Your task to perform on an android device: open app "Etsy: Buy & Sell Unique Items" (install if not already installed) and enter user name: "camp@inbox.com" and password: "unrelated" Image 0: 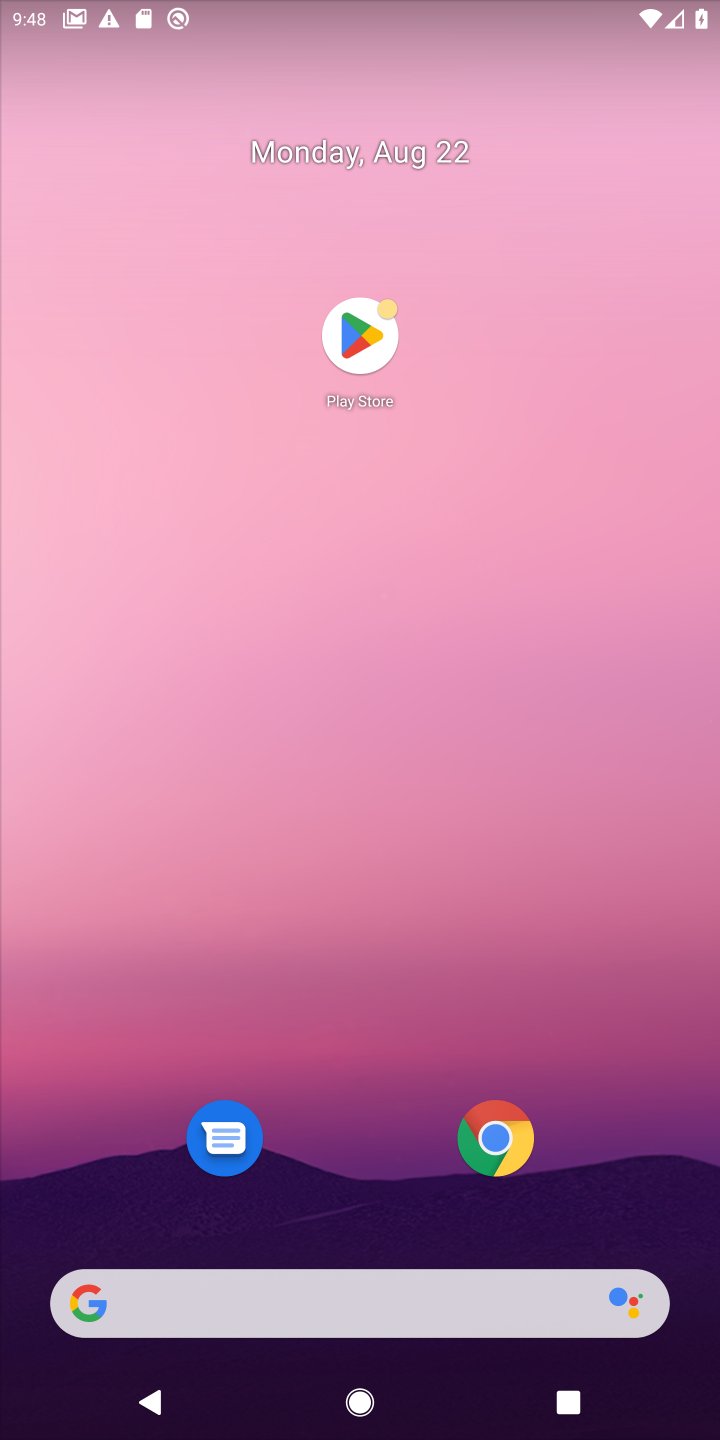
Step 0: click (350, 335)
Your task to perform on an android device: open app "Etsy: Buy & Sell Unique Items" (install if not already installed) and enter user name: "camp@inbox.com" and password: "unrelated" Image 1: 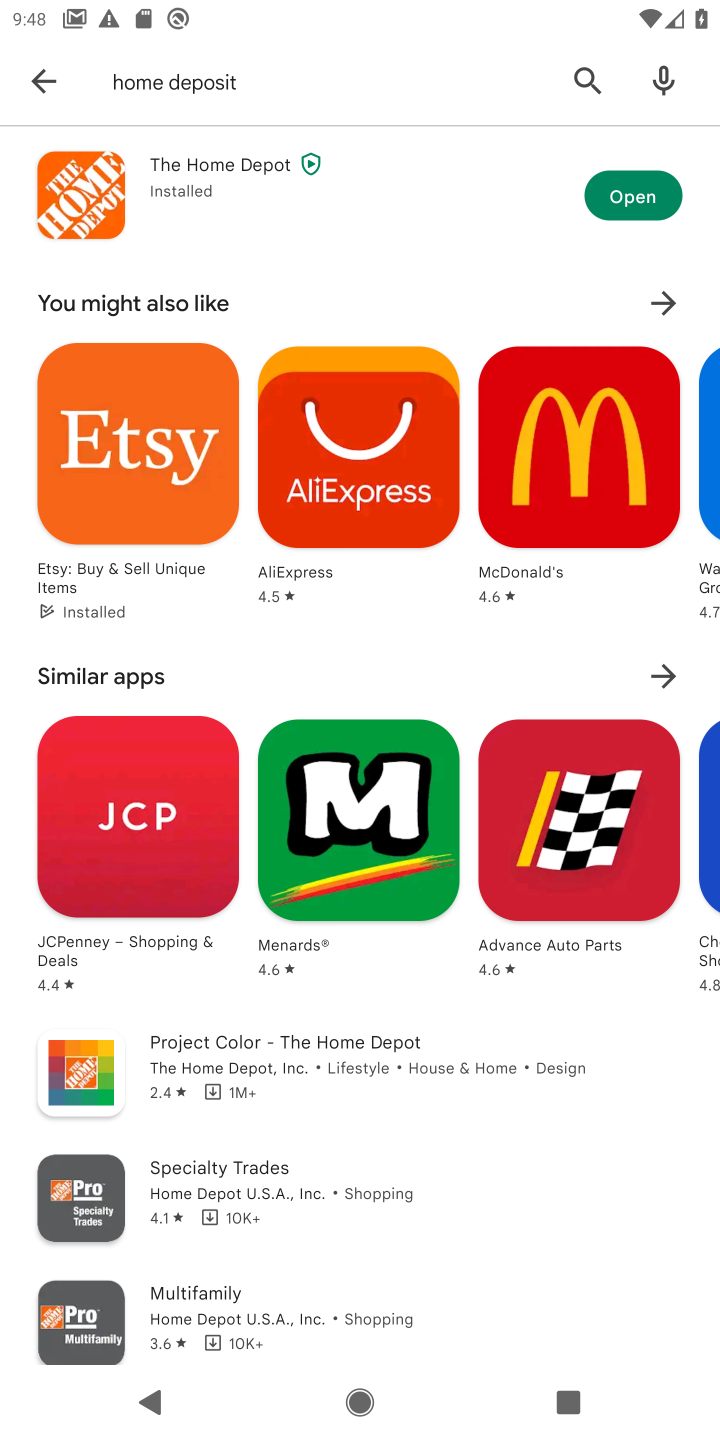
Step 1: click (592, 84)
Your task to perform on an android device: open app "Etsy: Buy & Sell Unique Items" (install if not already installed) and enter user name: "camp@inbox.com" and password: "unrelated" Image 2: 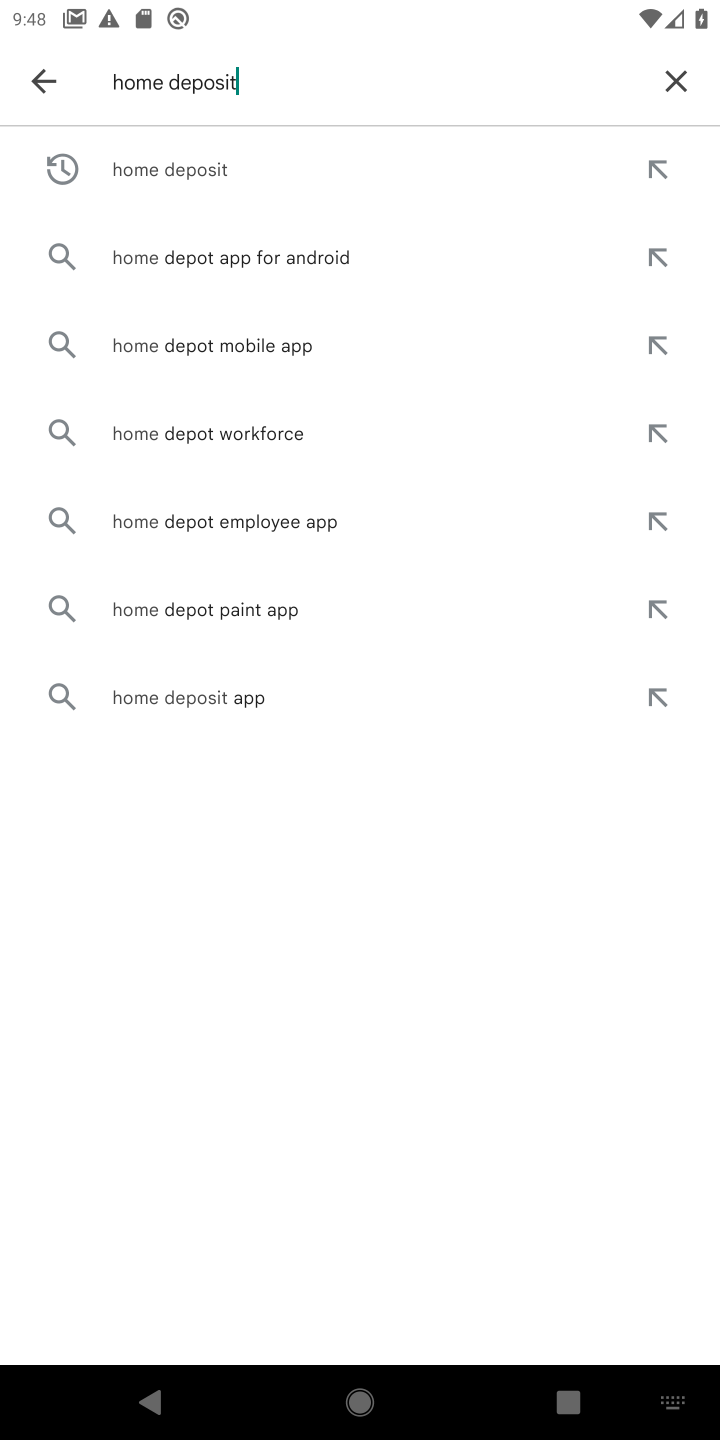
Step 2: click (675, 86)
Your task to perform on an android device: open app "Etsy: Buy & Sell Unique Items" (install if not already installed) and enter user name: "camp@inbox.com" and password: "unrelated" Image 3: 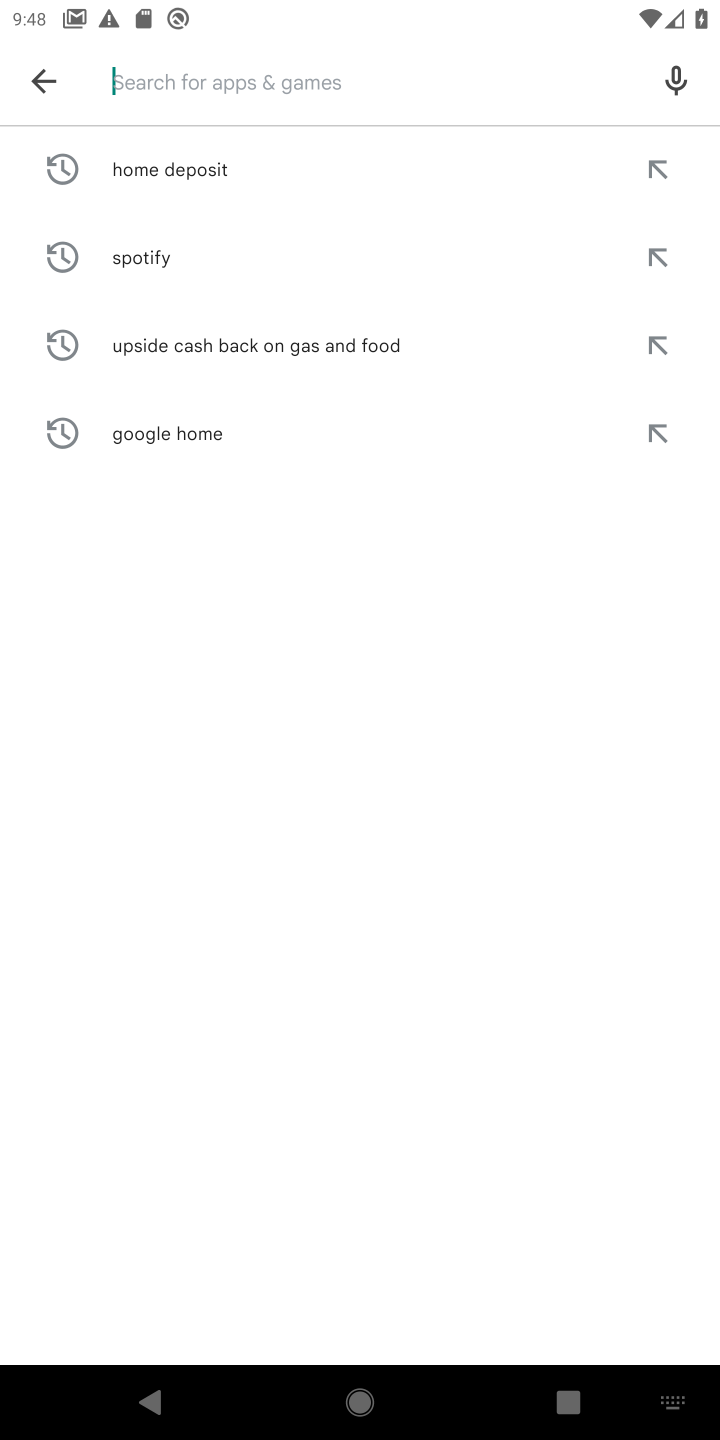
Step 3: type "Etsy: Buy & Sell Unique Items" "
Your task to perform on an android device: open app "Etsy: Buy & Sell Unique Items" (install if not already installed) and enter user name: "camp@inbox.com" and password: "unrelated" Image 4: 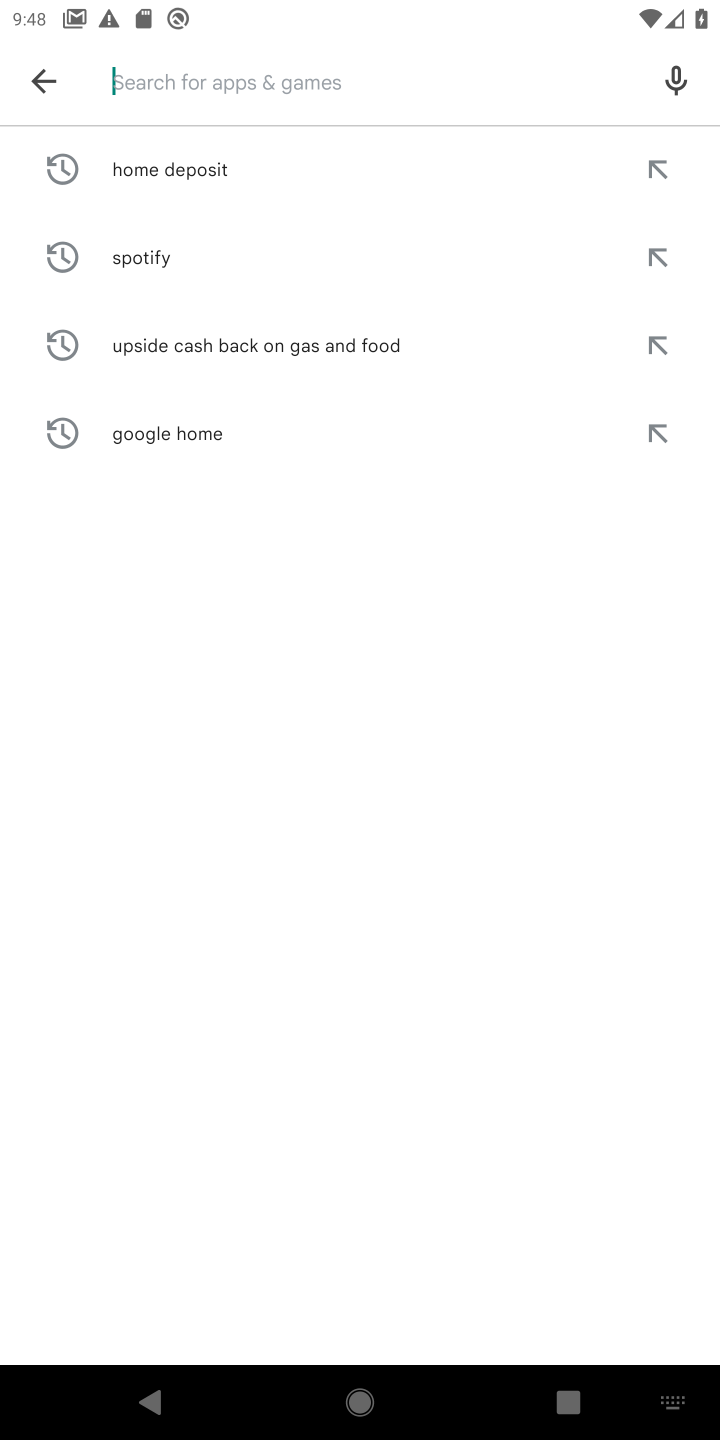
Step 4: type ""
Your task to perform on an android device: open app "Etsy: Buy & Sell Unique Items" (install if not already installed) and enter user name: "camp@inbox.com" and password: "unrelated" Image 5: 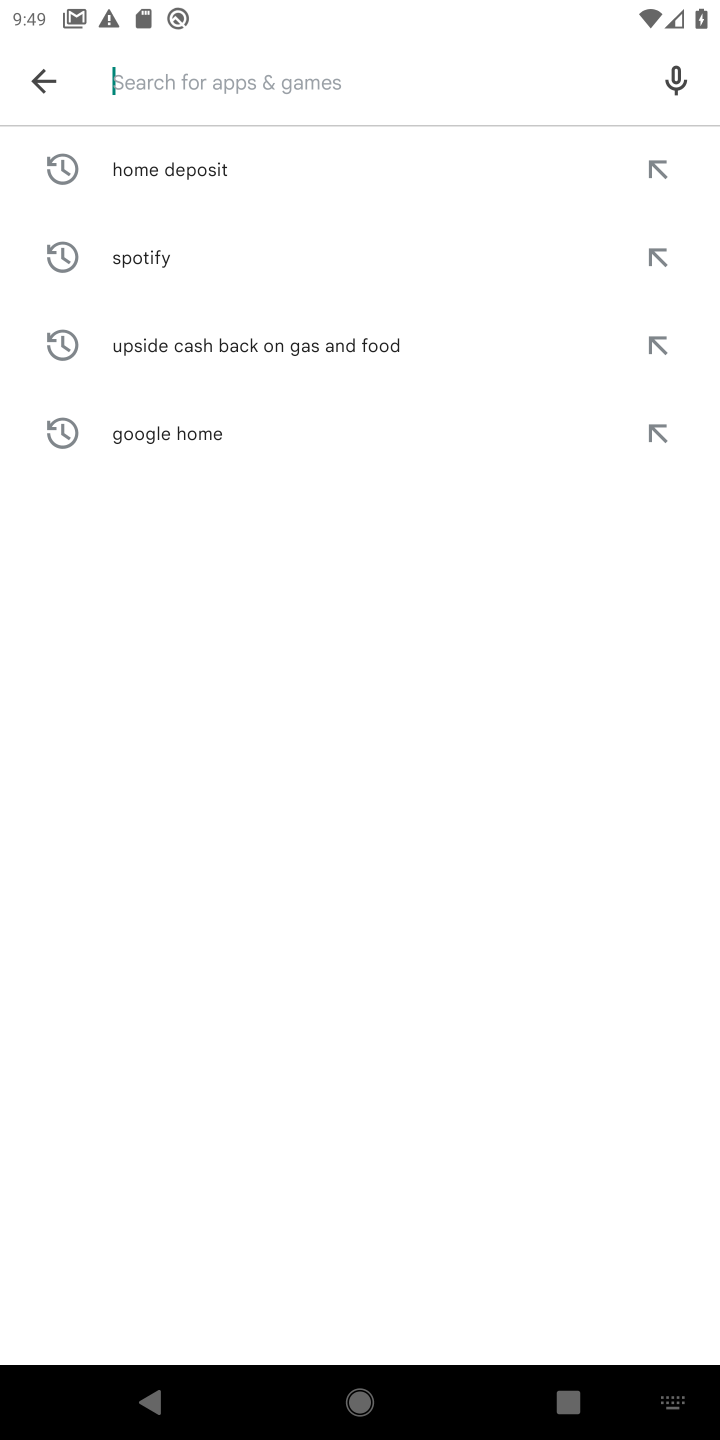
Step 5: type "Etsy: Buy & Sell Unique Items"
Your task to perform on an android device: open app "Etsy: Buy & Sell Unique Items" (install if not already installed) and enter user name: "camp@inbox.com" and password: "unrelated" Image 6: 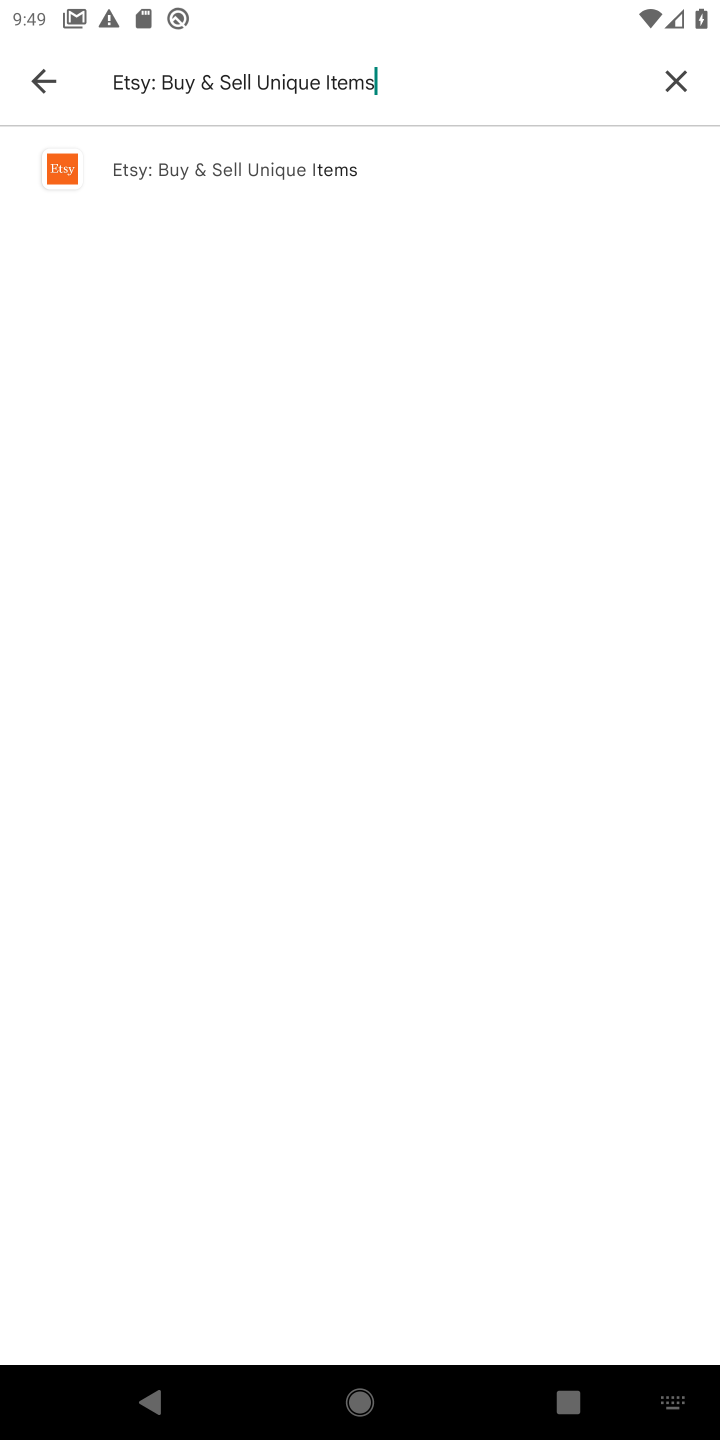
Step 6: type ""
Your task to perform on an android device: open app "Etsy: Buy & Sell Unique Items" (install if not already installed) and enter user name: "camp@inbox.com" and password: "unrelated" Image 7: 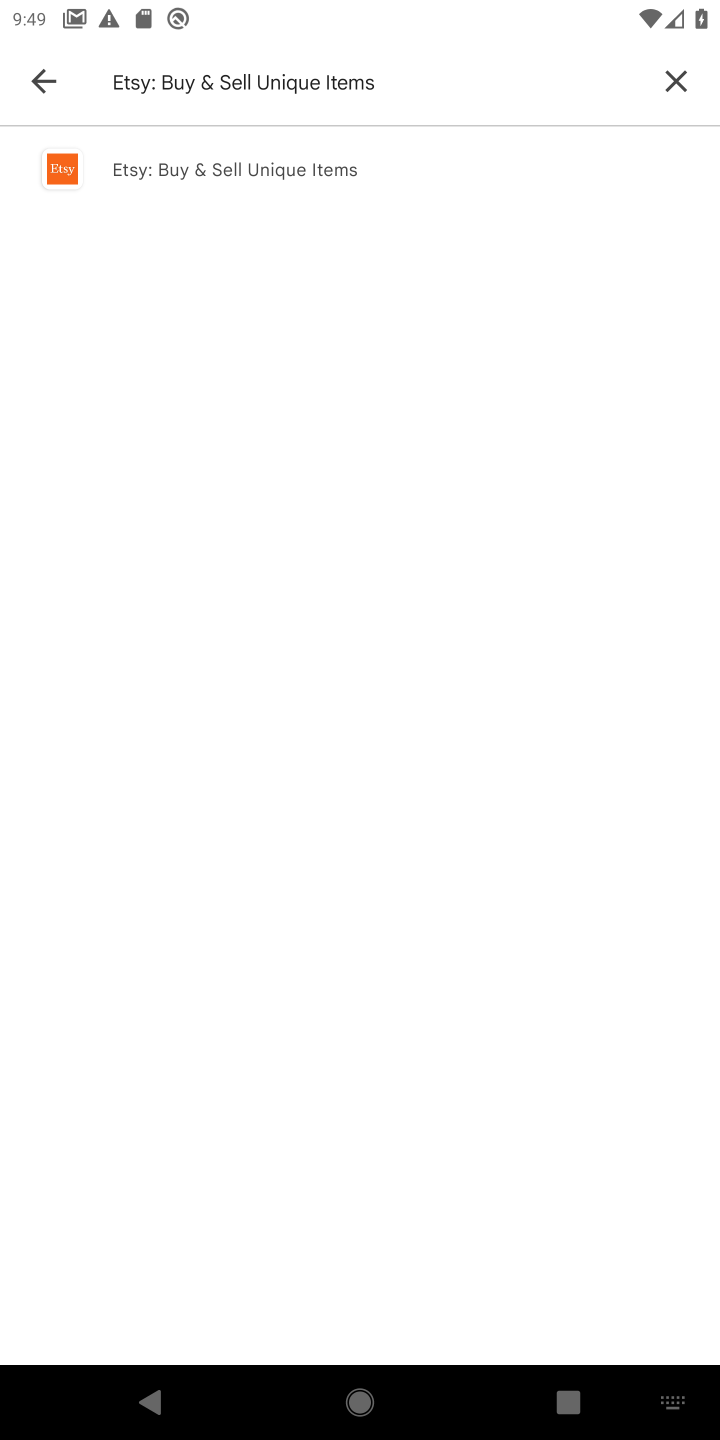
Step 7: click (227, 173)
Your task to perform on an android device: open app "Etsy: Buy & Sell Unique Items" (install if not already installed) and enter user name: "camp@inbox.com" and password: "unrelated" Image 8: 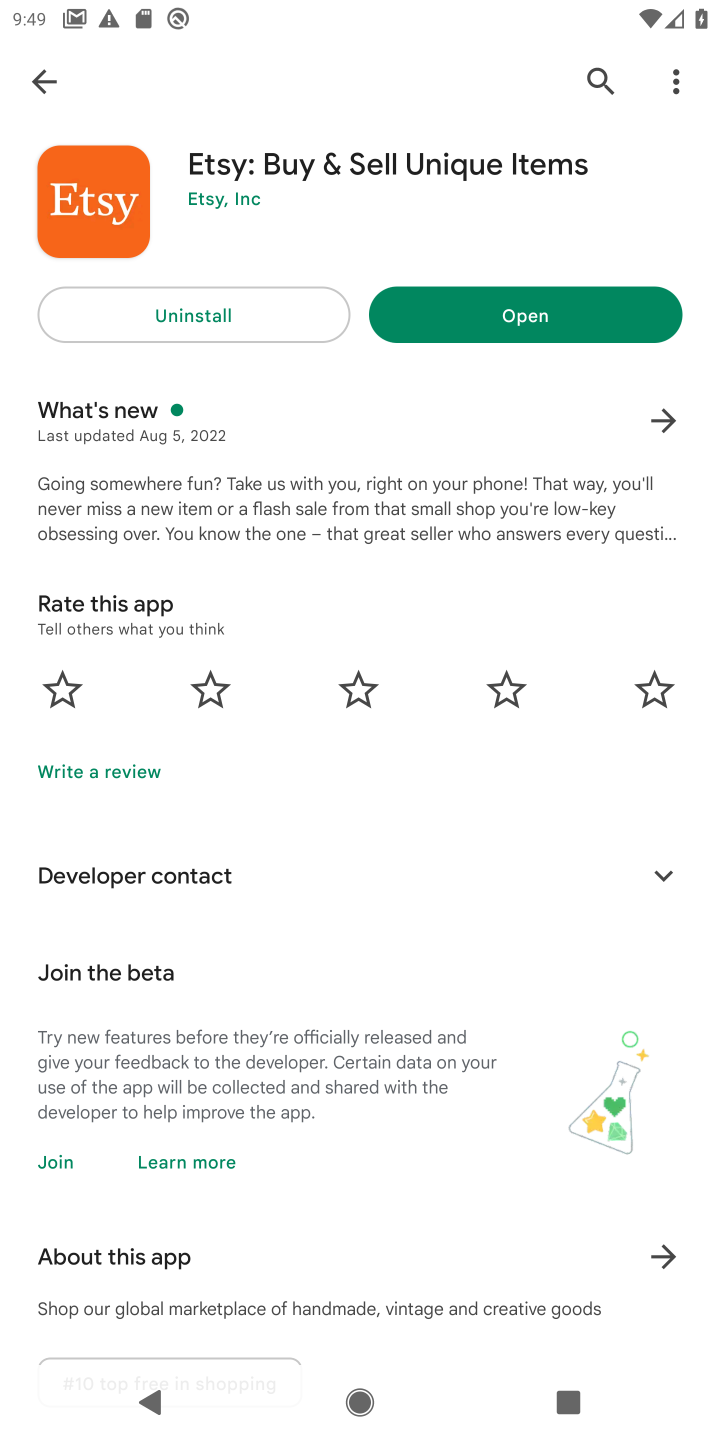
Step 8: click (523, 318)
Your task to perform on an android device: open app "Etsy: Buy & Sell Unique Items" (install if not already installed) and enter user name: "camp@inbox.com" and password: "unrelated" Image 9: 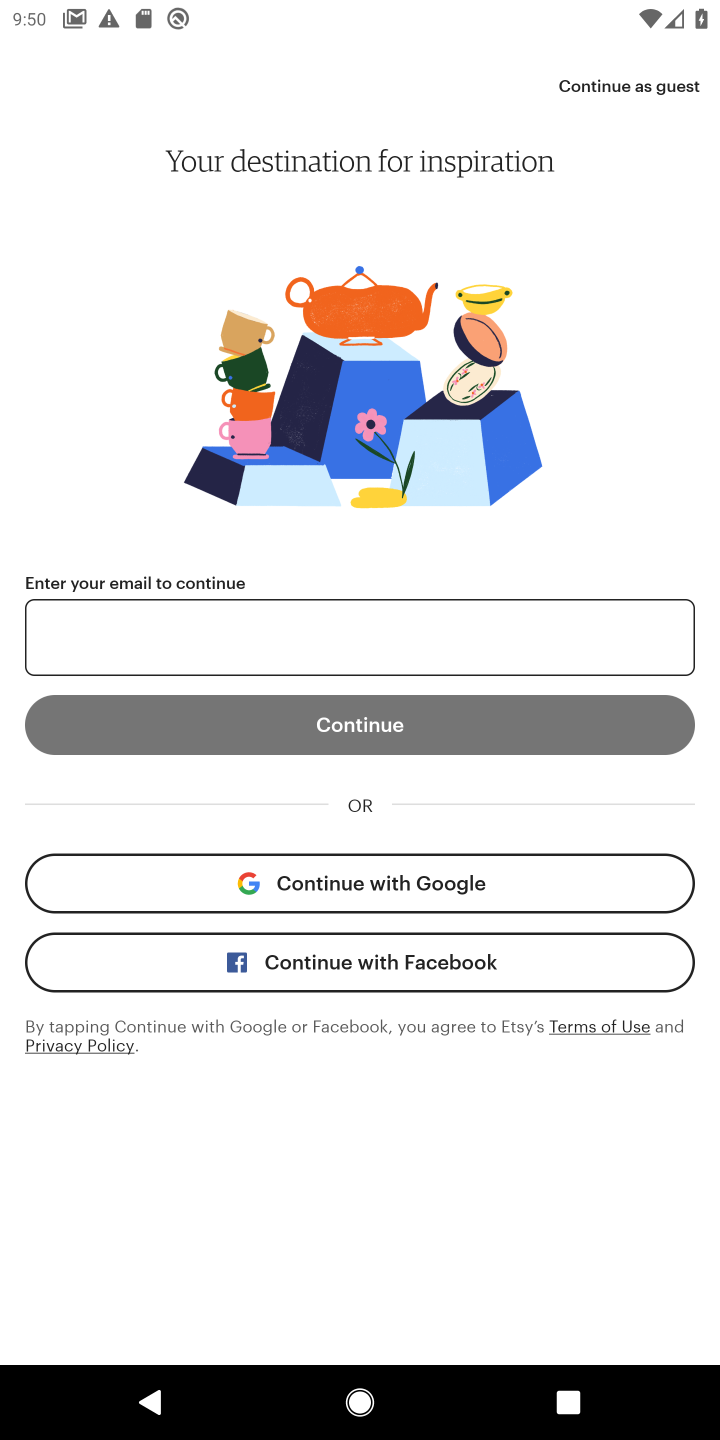
Step 9: type "camp@inbox.com"
Your task to perform on an android device: open app "Etsy: Buy & Sell Unique Items" (install if not already installed) and enter user name: "camp@inbox.com" and password: "unrelated" Image 10: 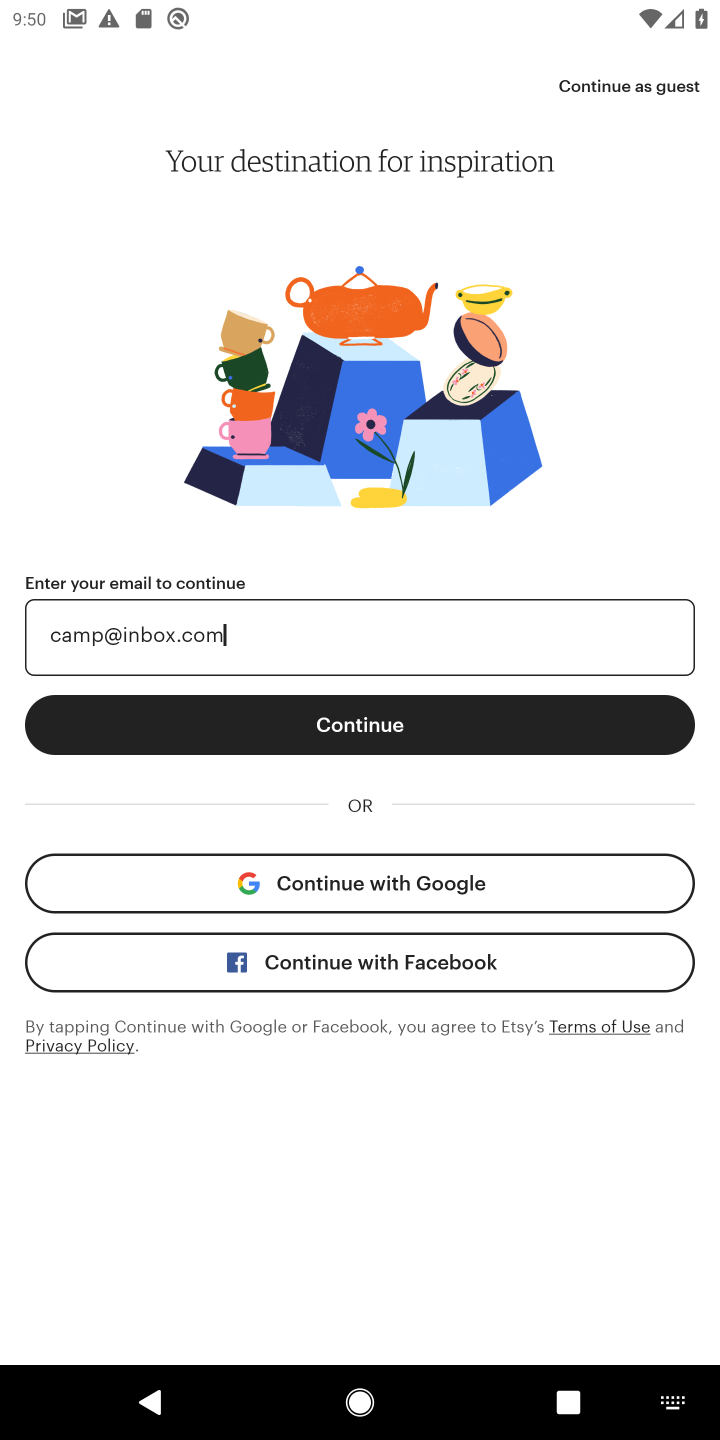
Step 10: click (351, 722)
Your task to perform on an android device: open app "Etsy: Buy & Sell Unique Items" (install if not already installed) and enter user name: "camp@inbox.com" and password: "unrelated" Image 11: 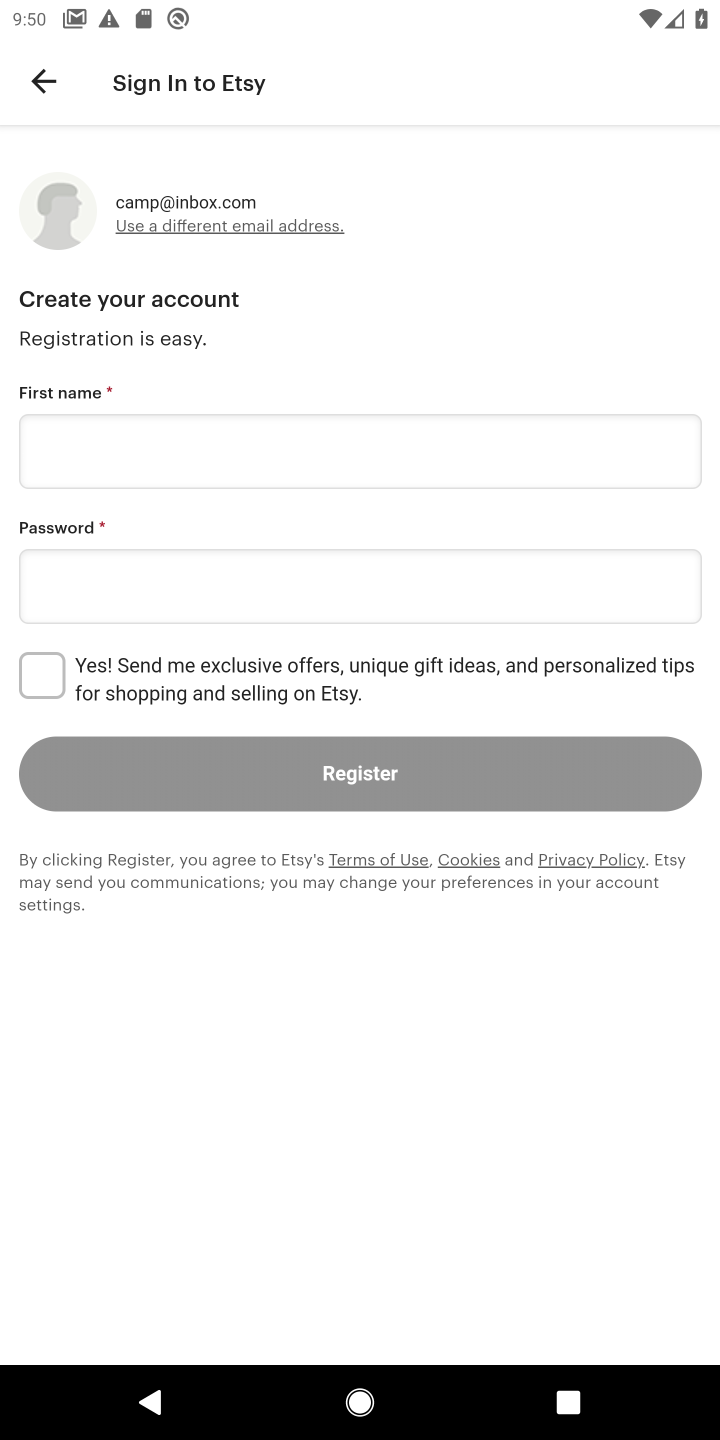
Step 11: type "camp@inbox.com"
Your task to perform on an android device: open app "Etsy: Buy & Sell Unique Items" (install if not already installed) and enter user name: "camp@inbox.com" and password: "unrelated" Image 12: 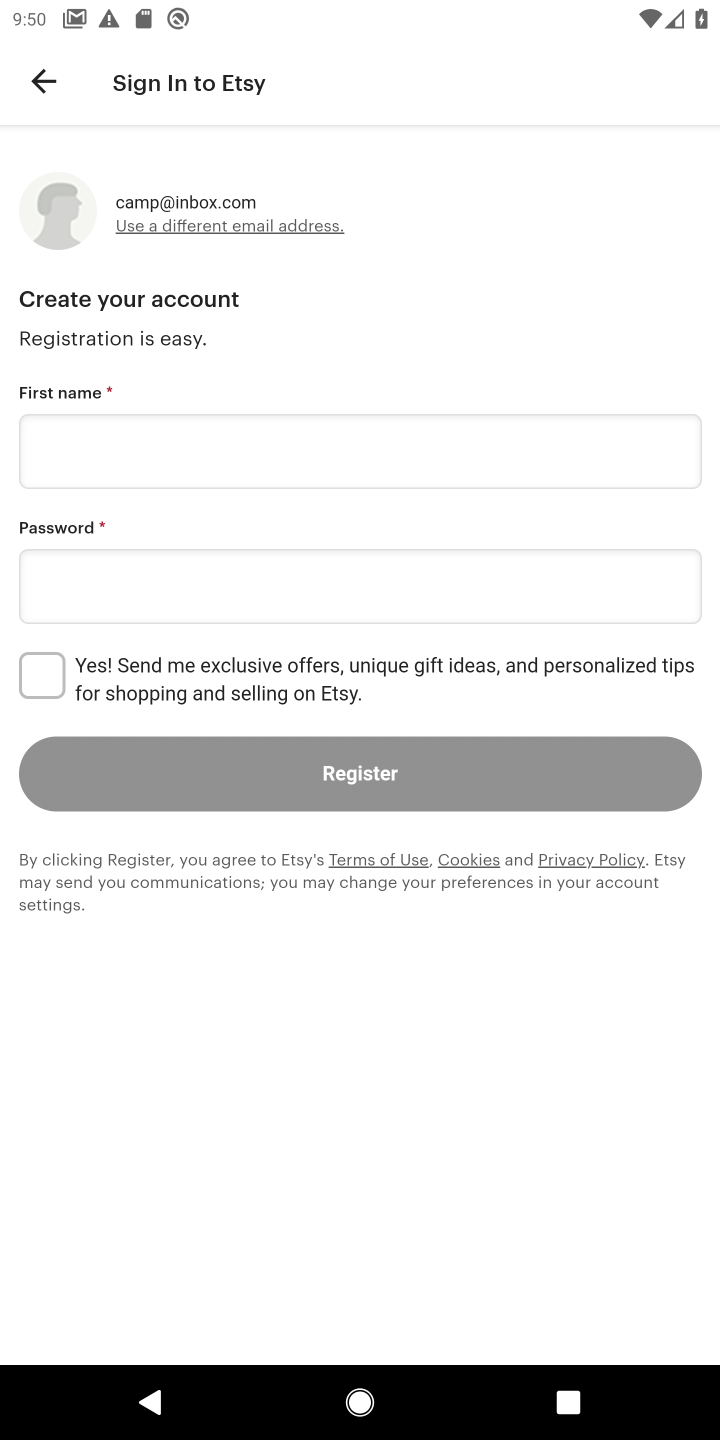
Step 12: type ""
Your task to perform on an android device: open app "Etsy: Buy & Sell Unique Items" (install if not already installed) and enter user name: "camp@inbox.com" and password: "unrelated" Image 13: 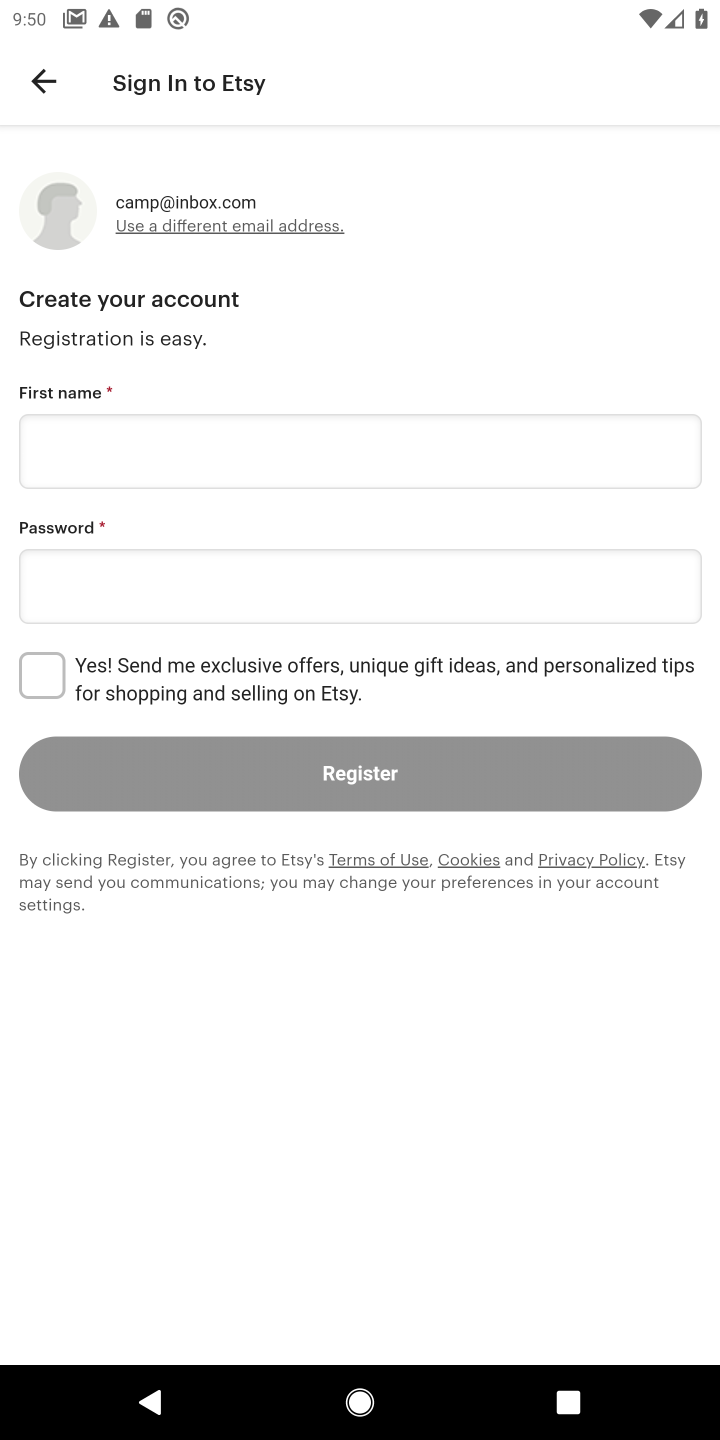
Step 13: click (136, 422)
Your task to perform on an android device: open app "Etsy: Buy & Sell Unique Items" (install if not already installed) and enter user name: "camp@inbox.com" and password: "unrelated" Image 14: 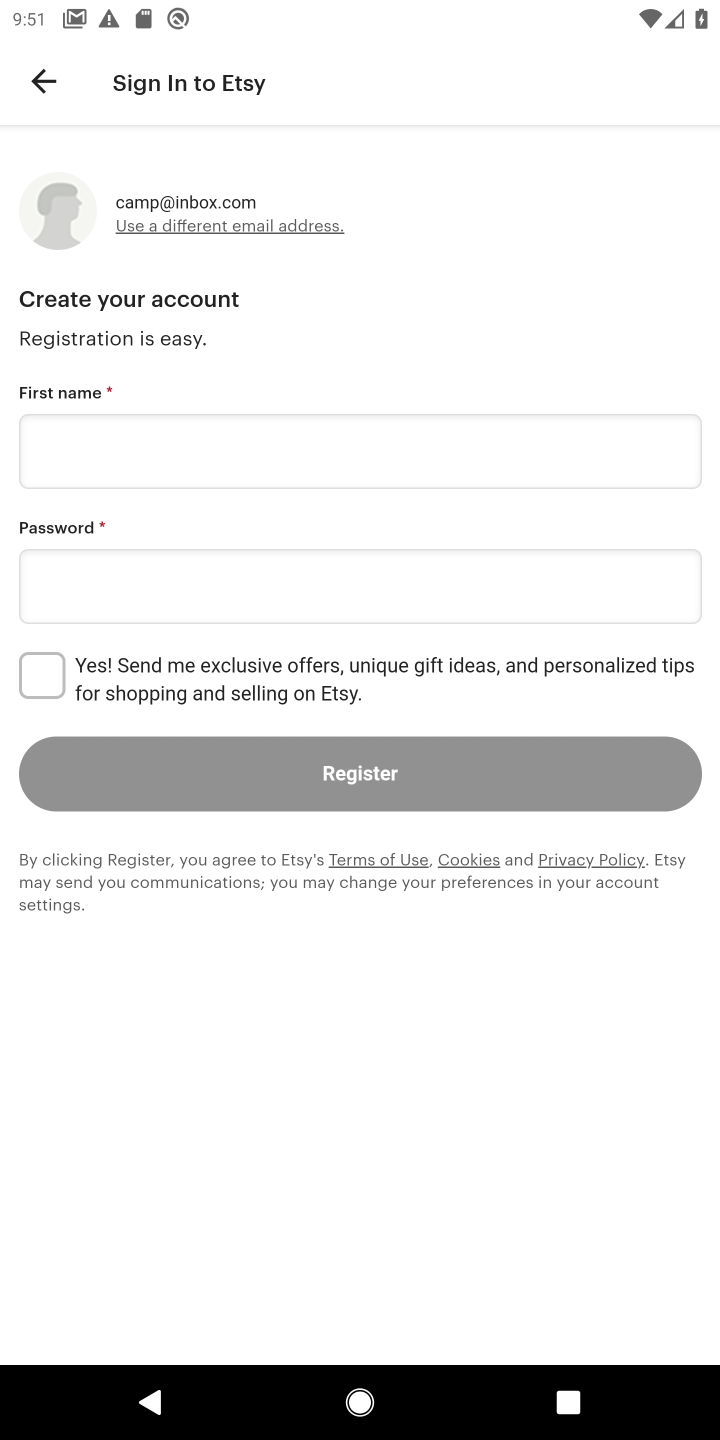
Step 14: click (125, 438)
Your task to perform on an android device: open app "Etsy: Buy & Sell Unique Items" (install if not already installed) and enter user name: "camp@inbox.com" and password: "unrelated" Image 15: 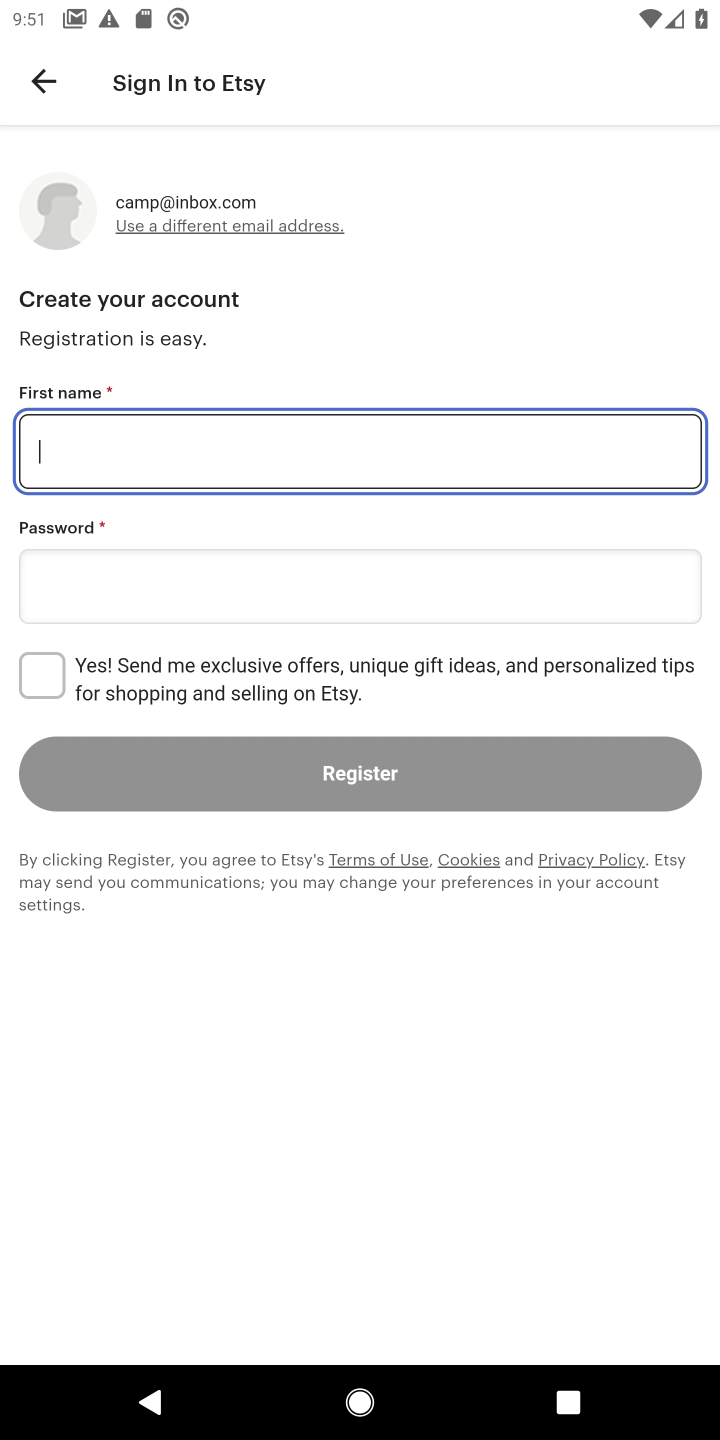
Step 15: click (117, 448)
Your task to perform on an android device: open app "Etsy: Buy & Sell Unique Items" (install if not already installed) and enter user name: "camp@inbox.com" and password: "unrelated" Image 16: 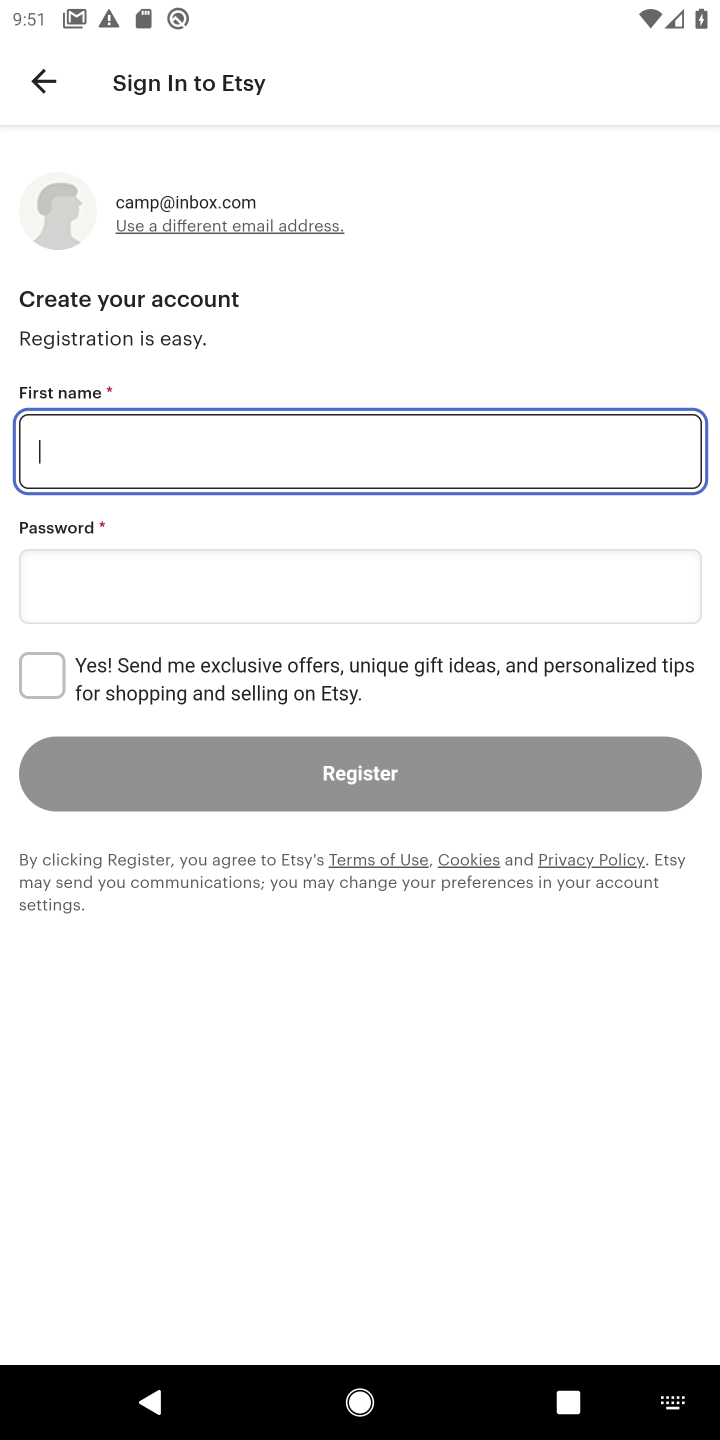
Step 16: type "camp@inbox.com"
Your task to perform on an android device: open app "Etsy: Buy & Sell Unique Items" (install if not already installed) and enter user name: "camp@inbox.com" and password: "unrelated" Image 17: 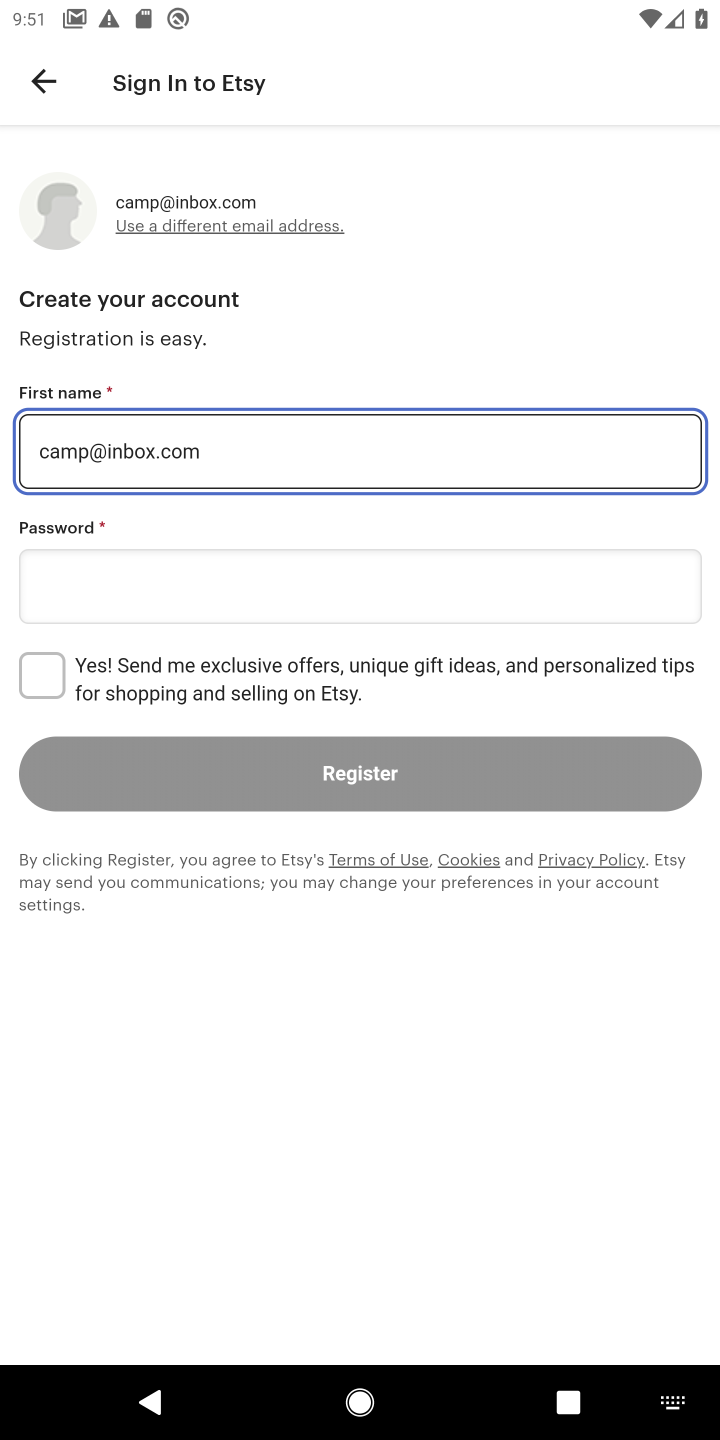
Step 17: click (239, 573)
Your task to perform on an android device: open app "Etsy: Buy & Sell Unique Items" (install if not already installed) and enter user name: "camp@inbox.com" and password: "unrelated" Image 18: 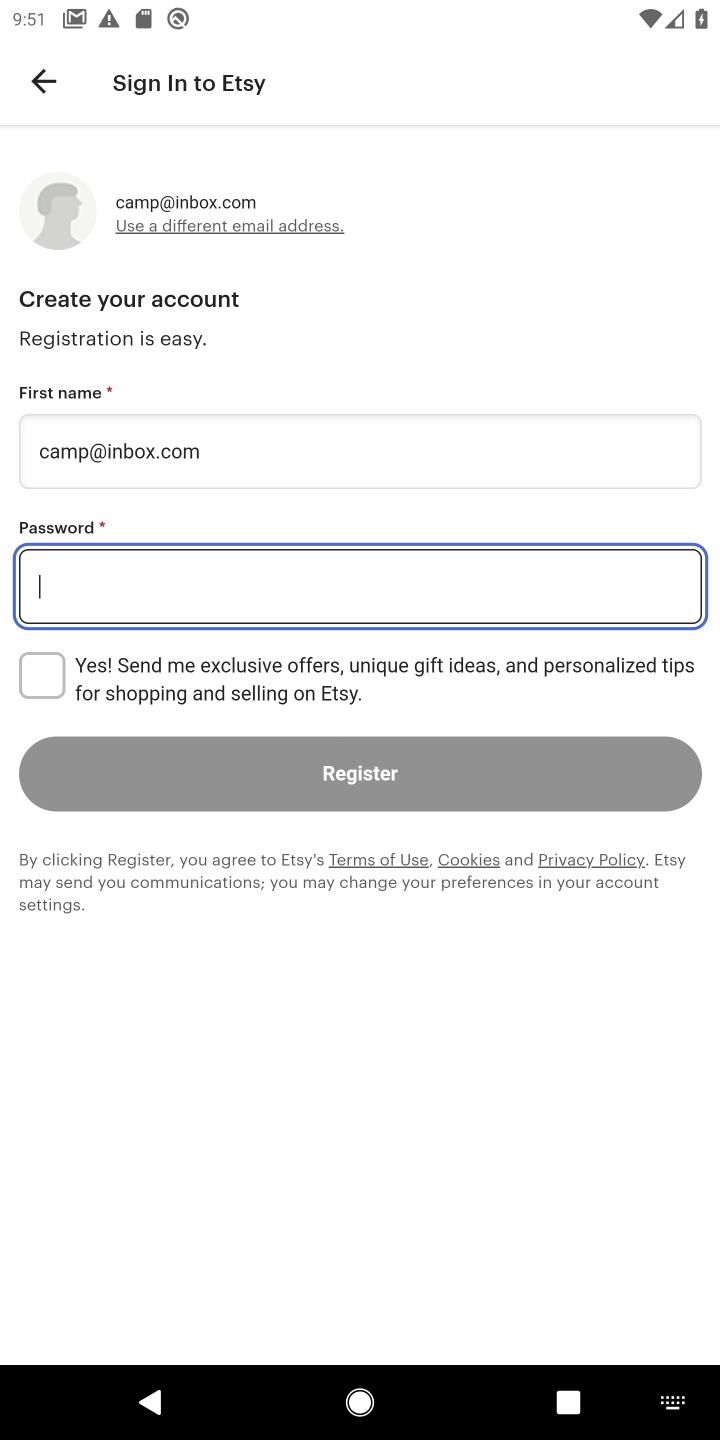
Step 18: click (91, 586)
Your task to perform on an android device: open app "Etsy: Buy & Sell Unique Items" (install if not already installed) and enter user name: "camp@inbox.com" and password: "unrelated" Image 19: 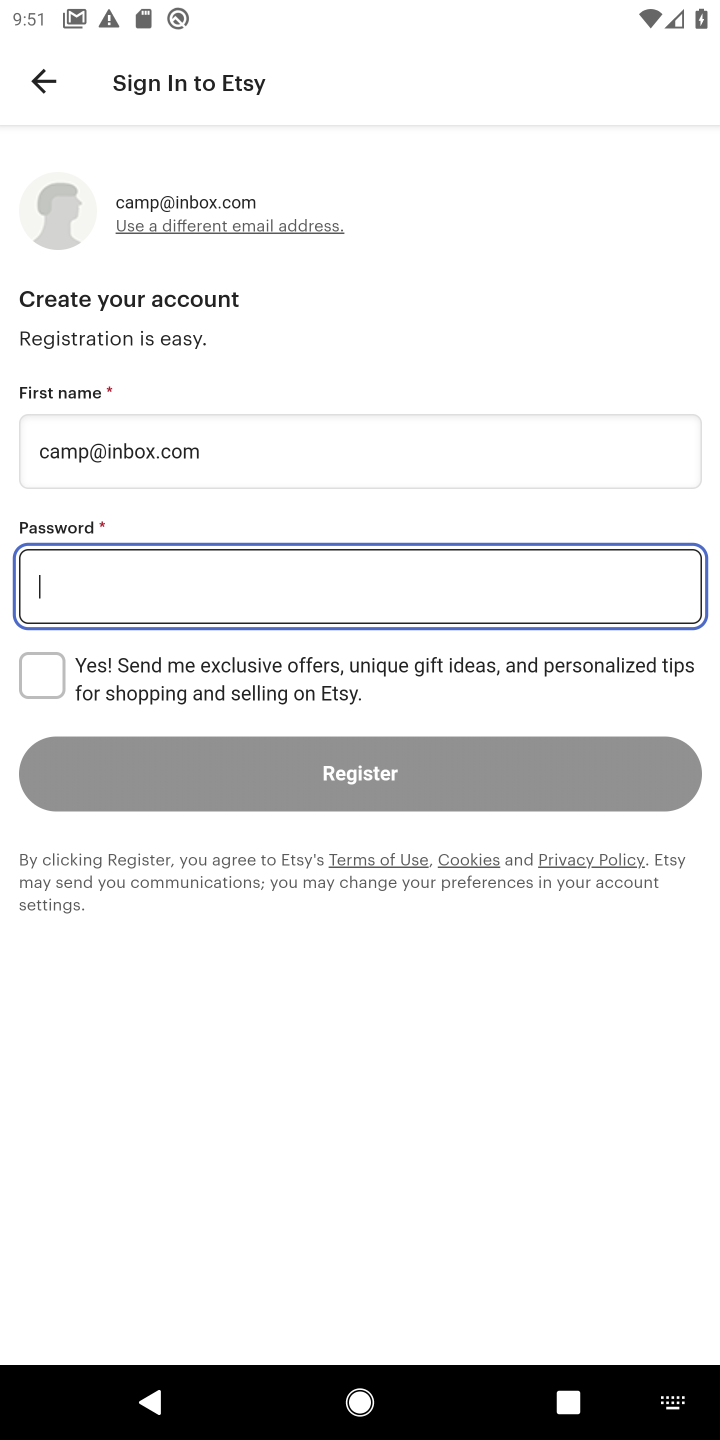
Step 19: type "unrelated"
Your task to perform on an android device: open app "Etsy: Buy & Sell Unique Items" (install if not already installed) and enter user name: "camp@inbox.com" and password: "unrelated" Image 20: 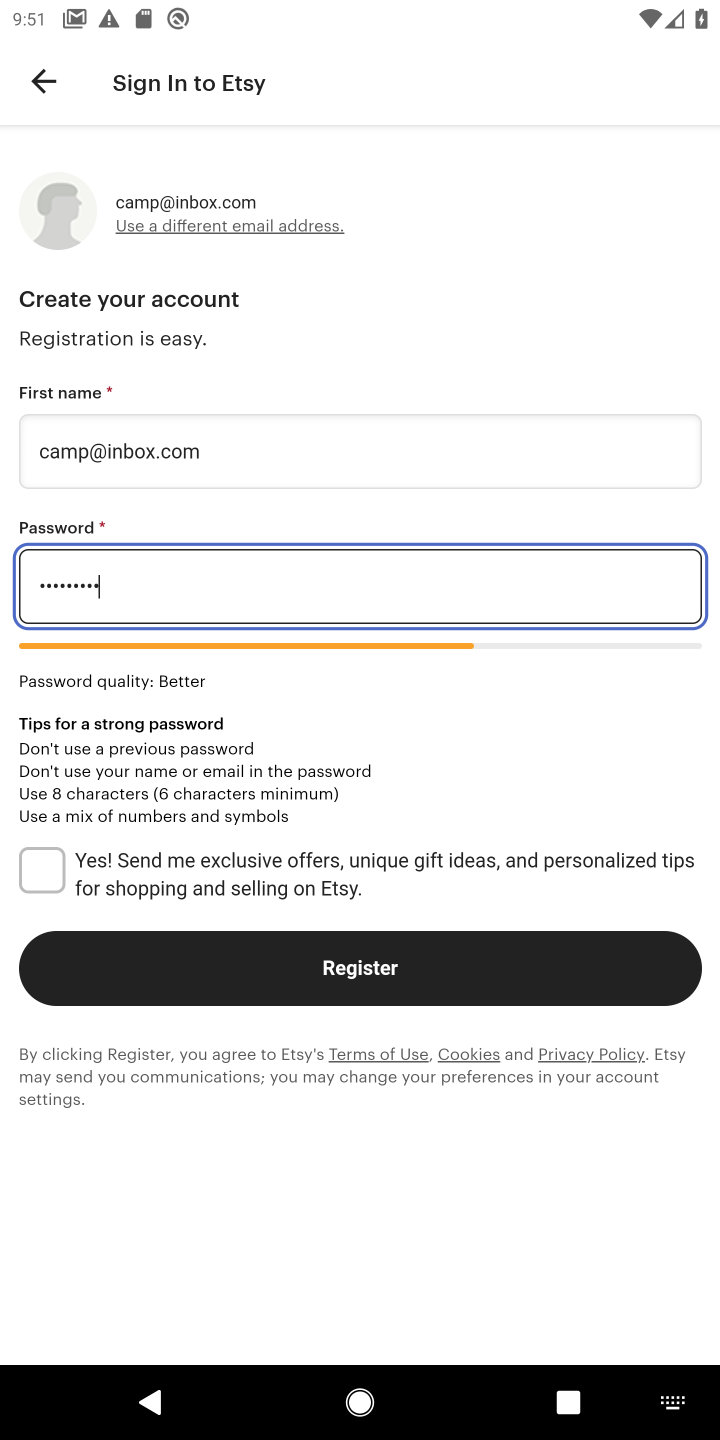
Step 20: task complete